Your task to perform on an android device: Search for sushi restaurants on Maps Image 0: 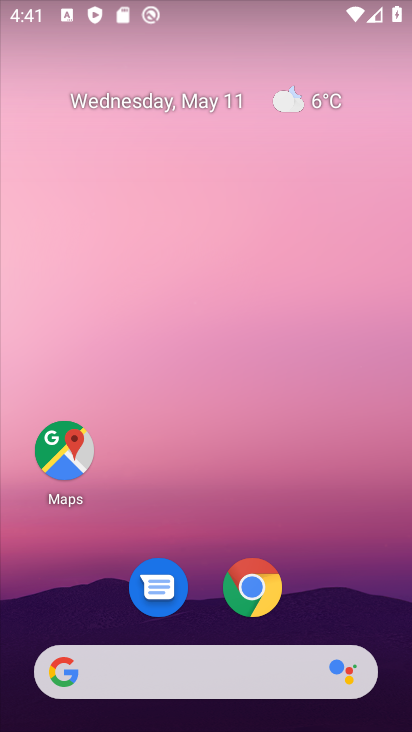
Step 0: click (204, 656)
Your task to perform on an android device: Search for sushi restaurants on Maps Image 1: 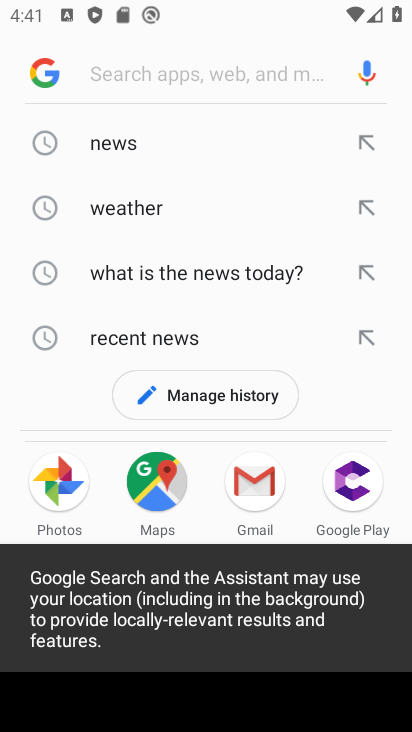
Step 1: press back button
Your task to perform on an android device: Search for sushi restaurants on Maps Image 2: 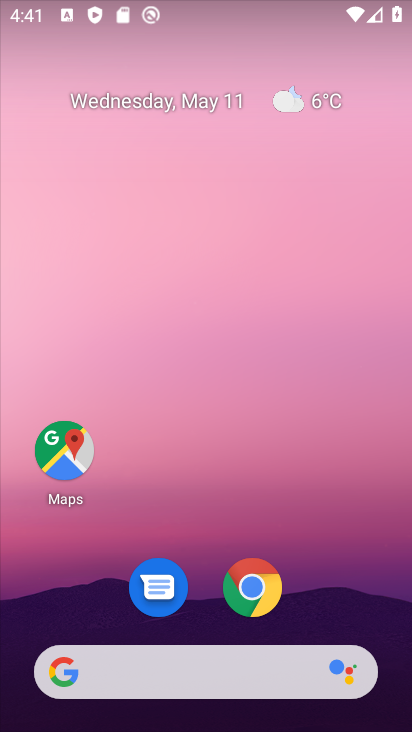
Step 2: click (86, 452)
Your task to perform on an android device: Search for sushi restaurants on Maps Image 3: 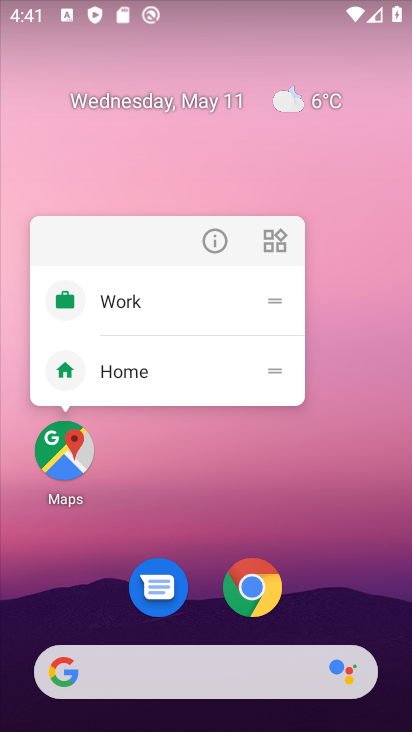
Step 3: click (88, 451)
Your task to perform on an android device: Search for sushi restaurants on Maps Image 4: 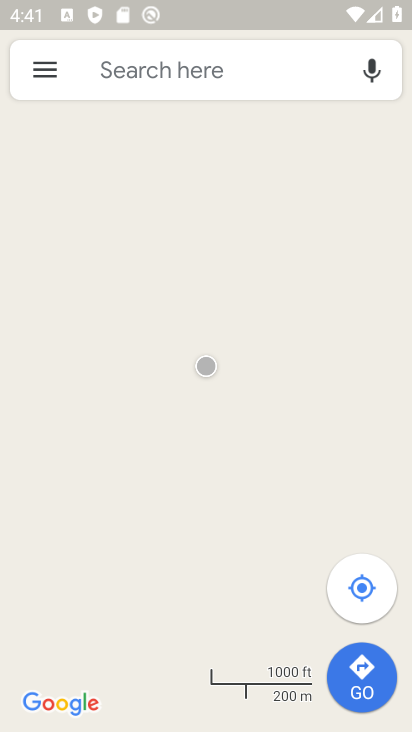
Step 4: click (145, 71)
Your task to perform on an android device: Search for sushi restaurants on Maps Image 5: 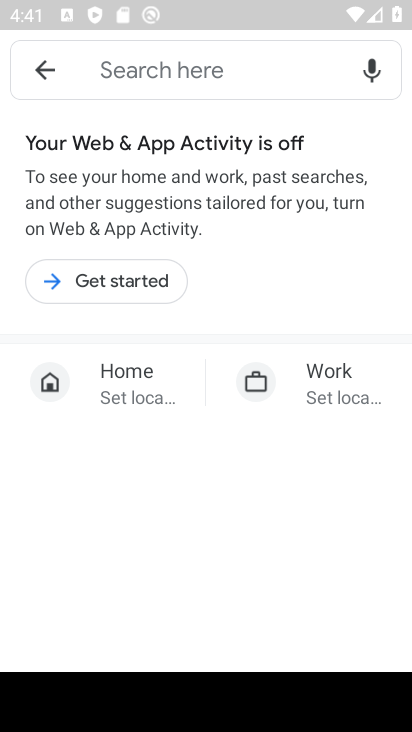
Step 5: click (145, 71)
Your task to perform on an android device: Search for sushi restaurants on Maps Image 6: 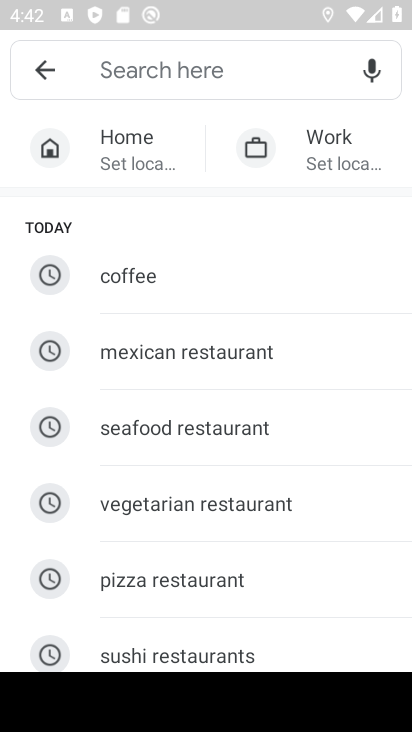
Step 6: type "sushi restaurants"
Your task to perform on an android device: Search for sushi restaurants on Maps Image 7: 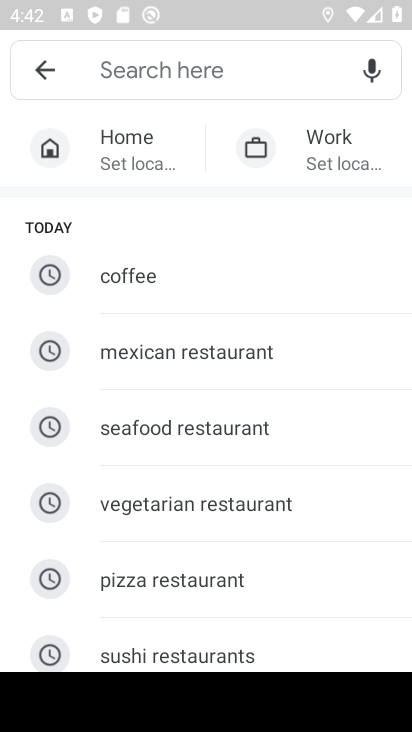
Step 7: click (354, 119)
Your task to perform on an android device: Search for sushi restaurants on Maps Image 8: 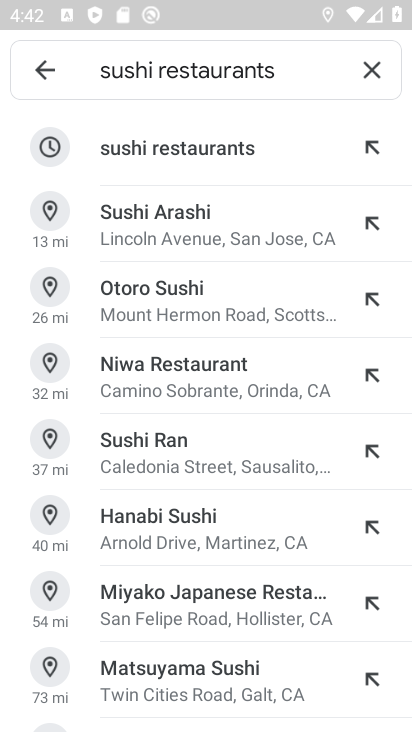
Step 8: click (202, 150)
Your task to perform on an android device: Search for sushi restaurants on Maps Image 9: 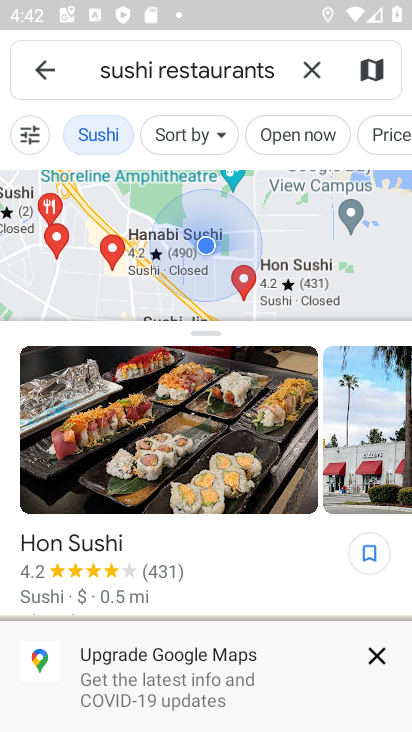
Step 9: task complete